Your task to perform on an android device: move a message to another label in the gmail app Image 0: 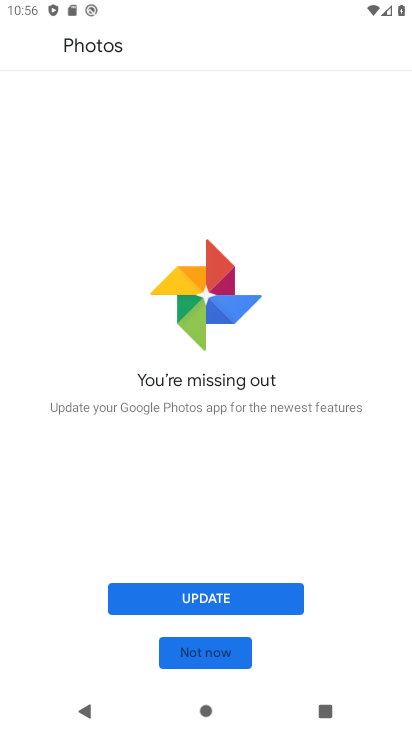
Step 0: press home button
Your task to perform on an android device: move a message to another label in the gmail app Image 1: 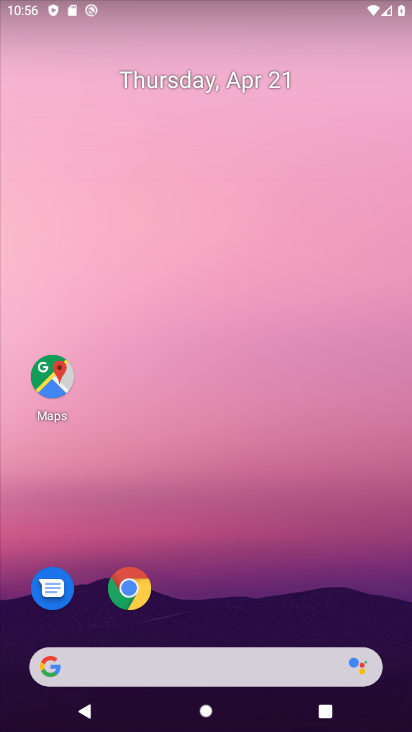
Step 1: drag from (220, 596) to (229, 124)
Your task to perform on an android device: move a message to another label in the gmail app Image 2: 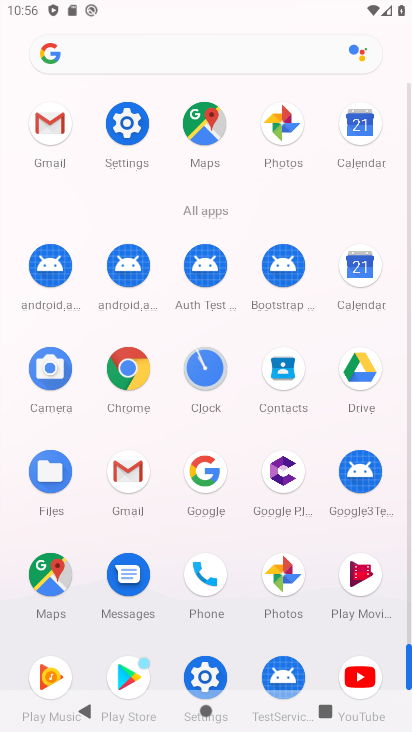
Step 2: click (125, 465)
Your task to perform on an android device: move a message to another label in the gmail app Image 3: 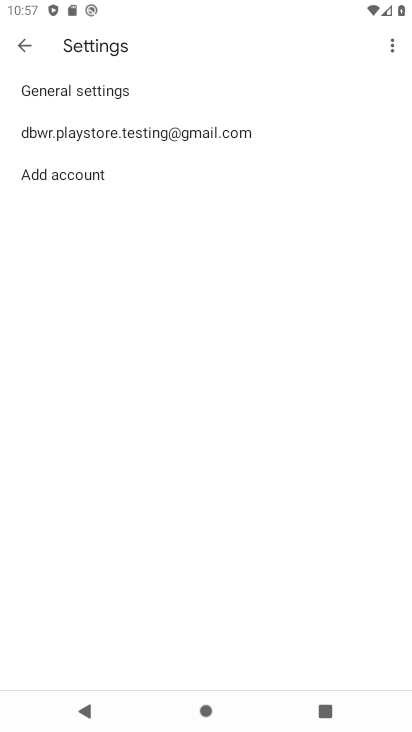
Step 3: click (25, 51)
Your task to perform on an android device: move a message to another label in the gmail app Image 4: 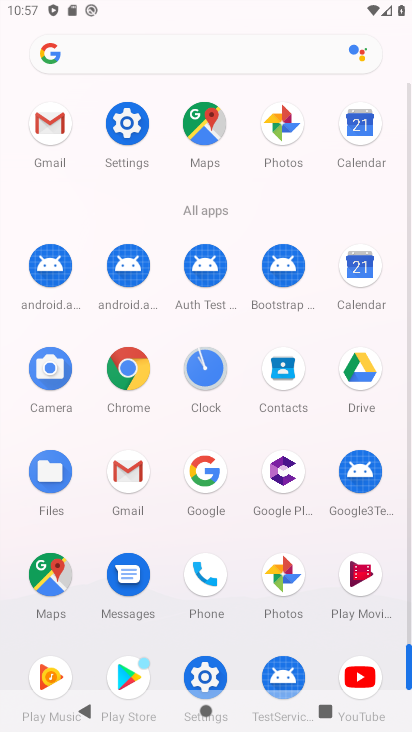
Step 4: click (56, 114)
Your task to perform on an android device: move a message to another label in the gmail app Image 5: 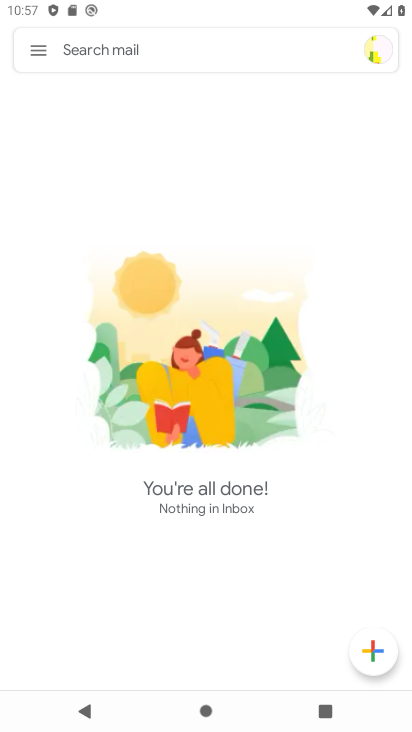
Step 5: task complete